Your task to perform on an android device: clear history in the chrome app Image 0: 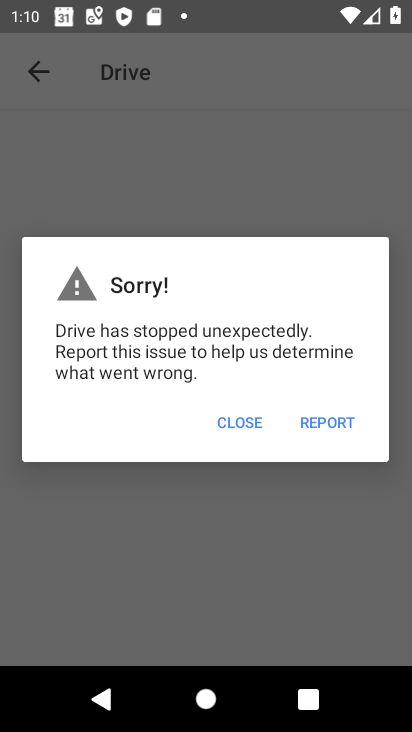
Step 0: press home button
Your task to perform on an android device: clear history in the chrome app Image 1: 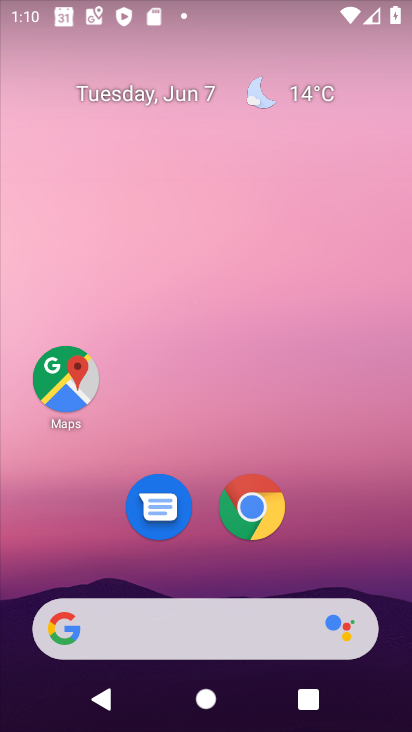
Step 1: click (255, 507)
Your task to perform on an android device: clear history in the chrome app Image 2: 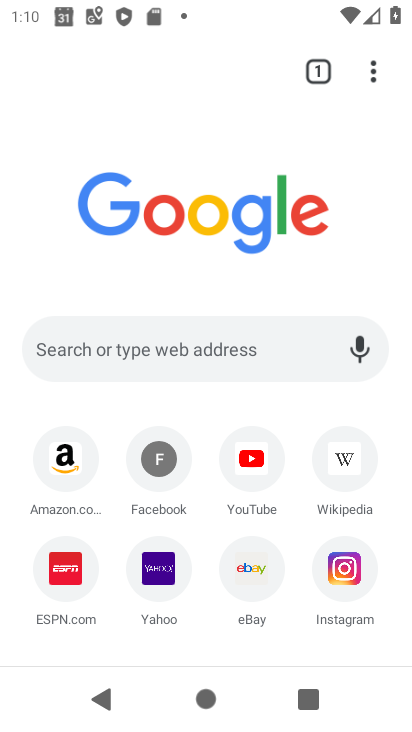
Step 2: click (370, 81)
Your task to perform on an android device: clear history in the chrome app Image 3: 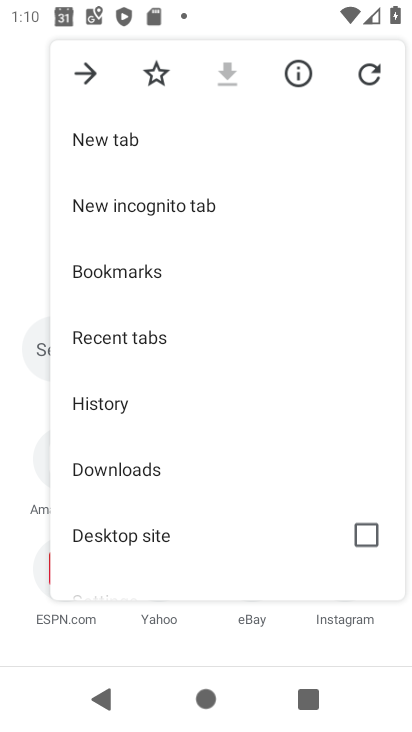
Step 3: click (118, 398)
Your task to perform on an android device: clear history in the chrome app Image 4: 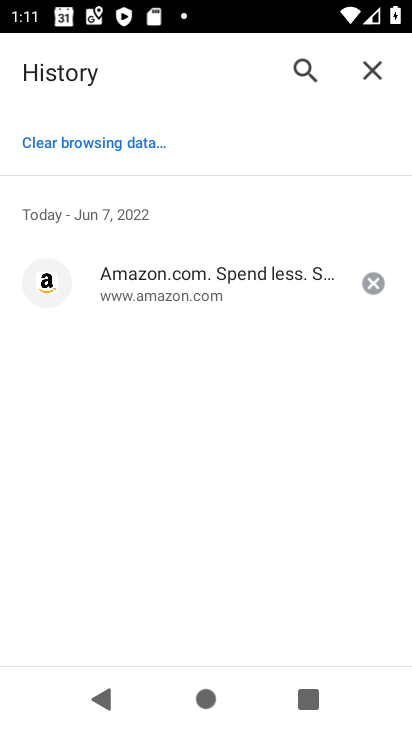
Step 4: click (85, 144)
Your task to perform on an android device: clear history in the chrome app Image 5: 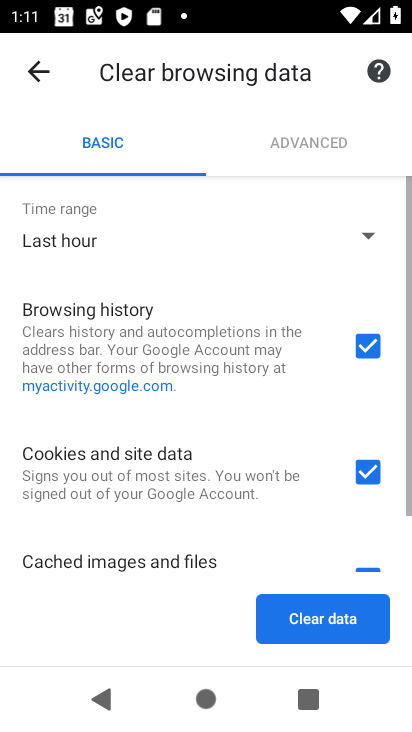
Step 5: click (373, 460)
Your task to perform on an android device: clear history in the chrome app Image 6: 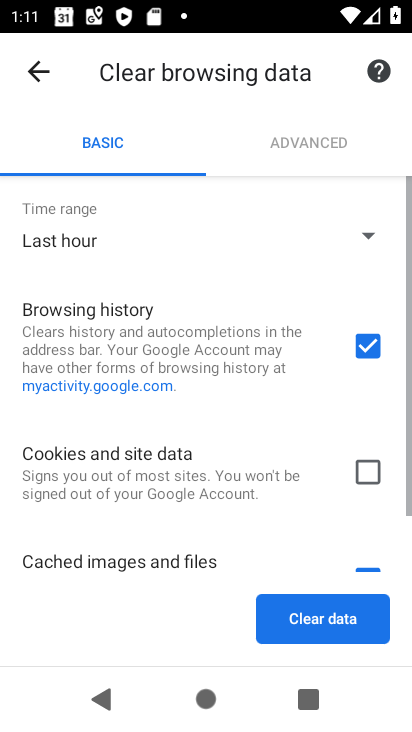
Step 6: drag from (358, 562) to (315, 250)
Your task to perform on an android device: clear history in the chrome app Image 7: 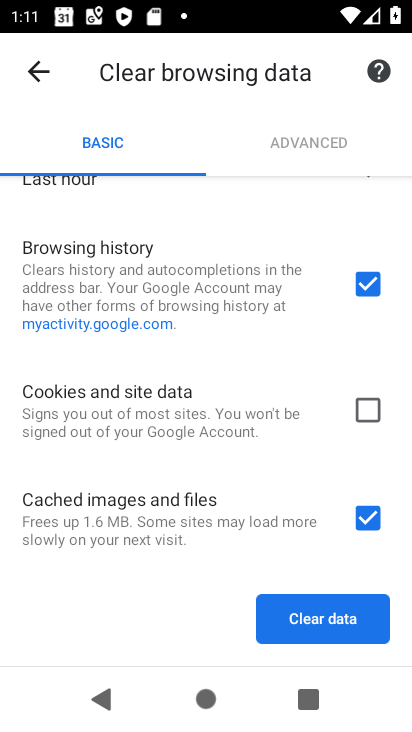
Step 7: click (370, 516)
Your task to perform on an android device: clear history in the chrome app Image 8: 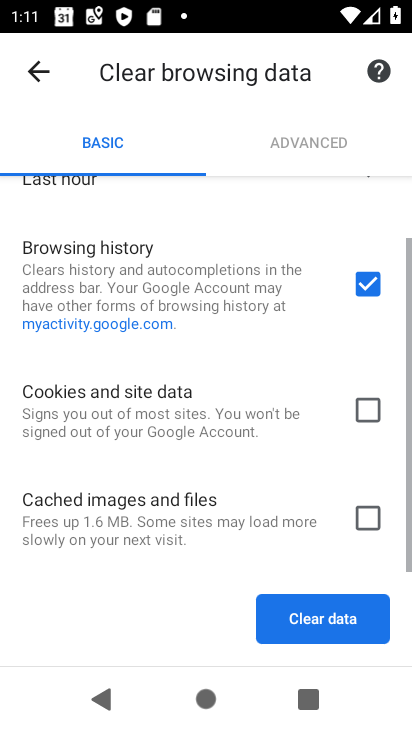
Step 8: click (313, 621)
Your task to perform on an android device: clear history in the chrome app Image 9: 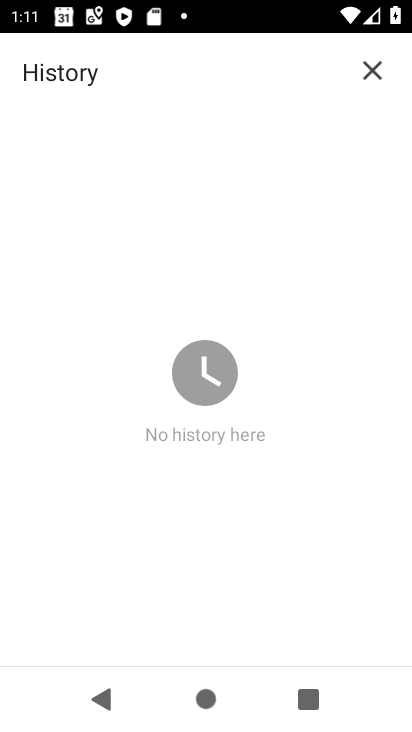
Step 9: task complete